Your task to perform on an android device: turn off javascript in the chrome app Image 0: 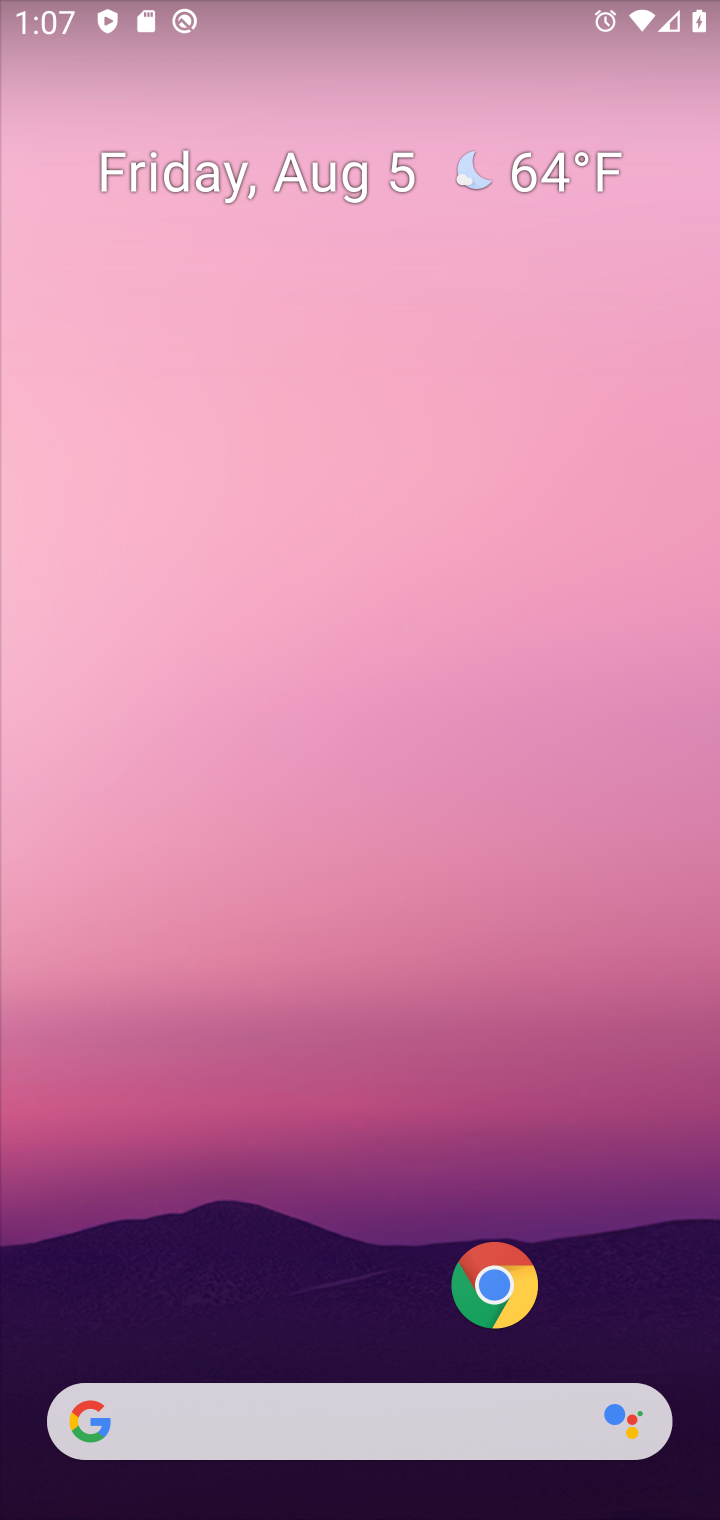
Step 0: click (508, 1298)
Your task to perform on an android device: turn off javascript in the chrome app Image 1: 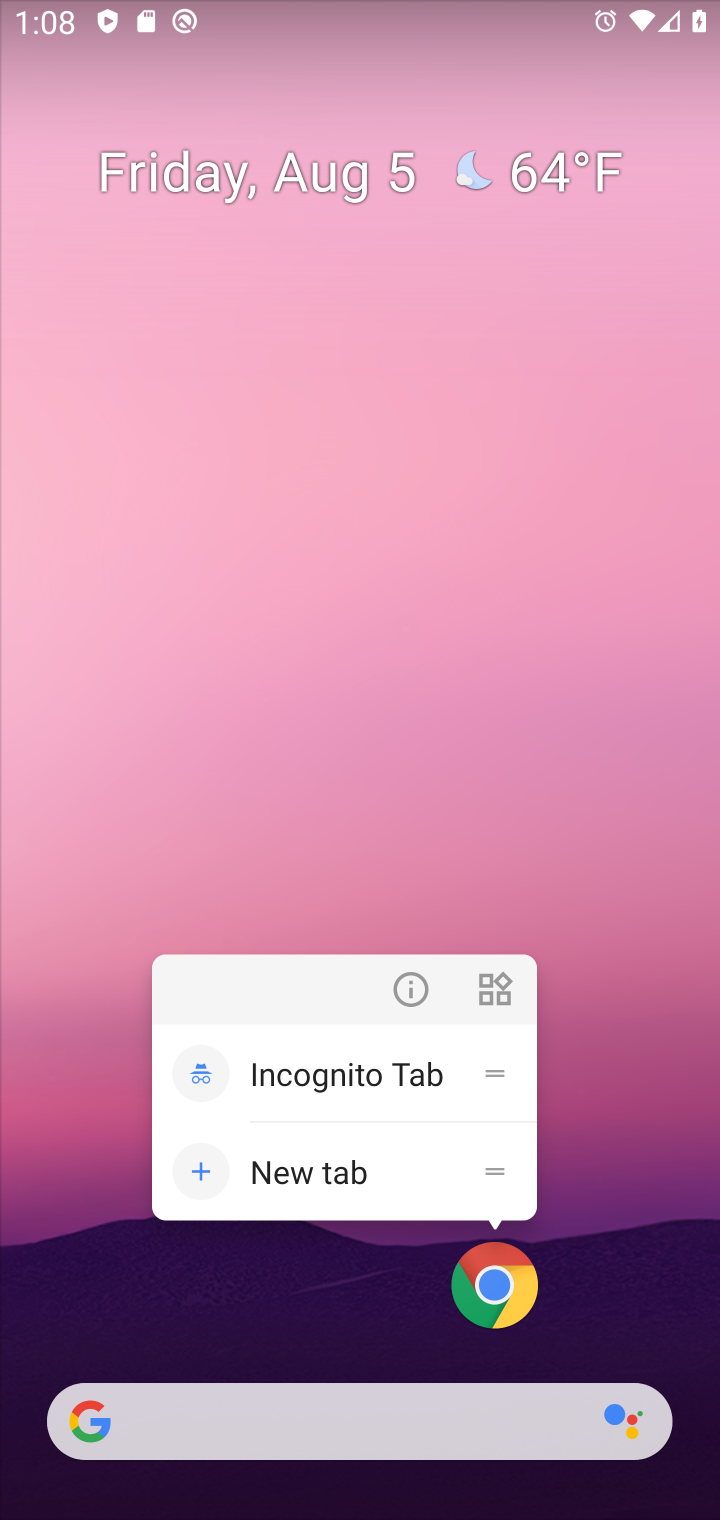
Step 1: click (273, 1297)
Your task to perform on an android device: turn off javascript in the chrome app Image 2: 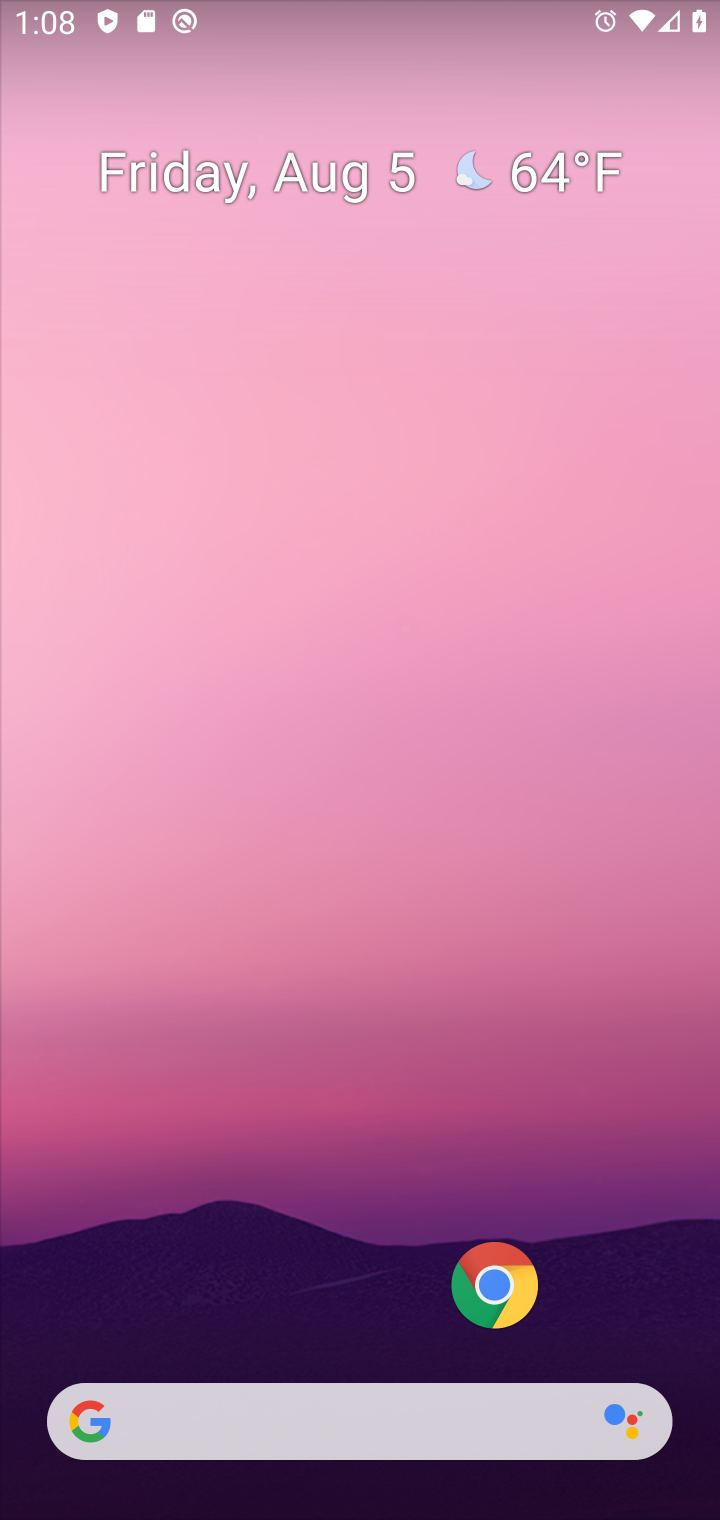
Step 2: drag from (319, 1326) to (306, 920)
Your task to perform on an android device: turn off javascript in the chrome app Image 3: 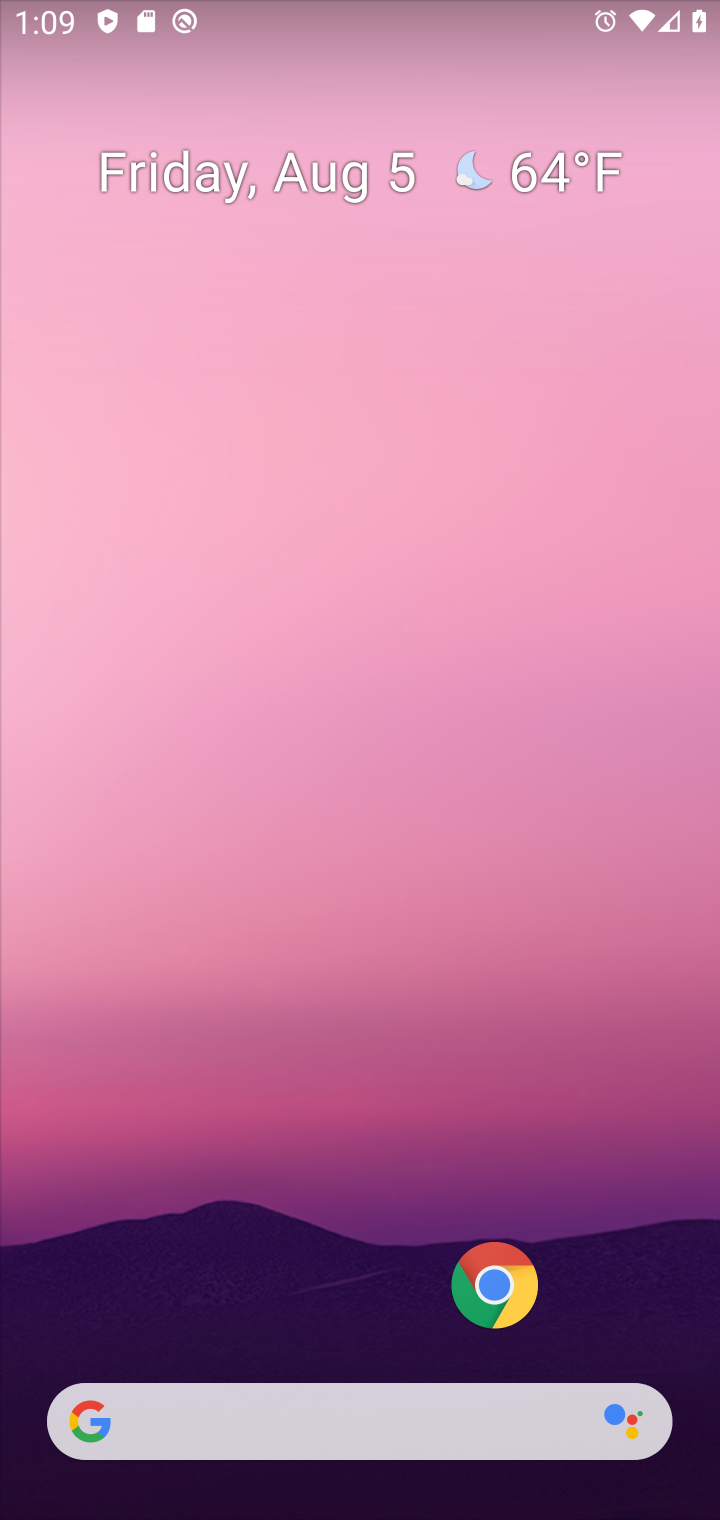
Step 3: drag from (241, 1062) to (248, 695)
Your task to perform on an android device: turn off javascript in the chrome app Image 4: 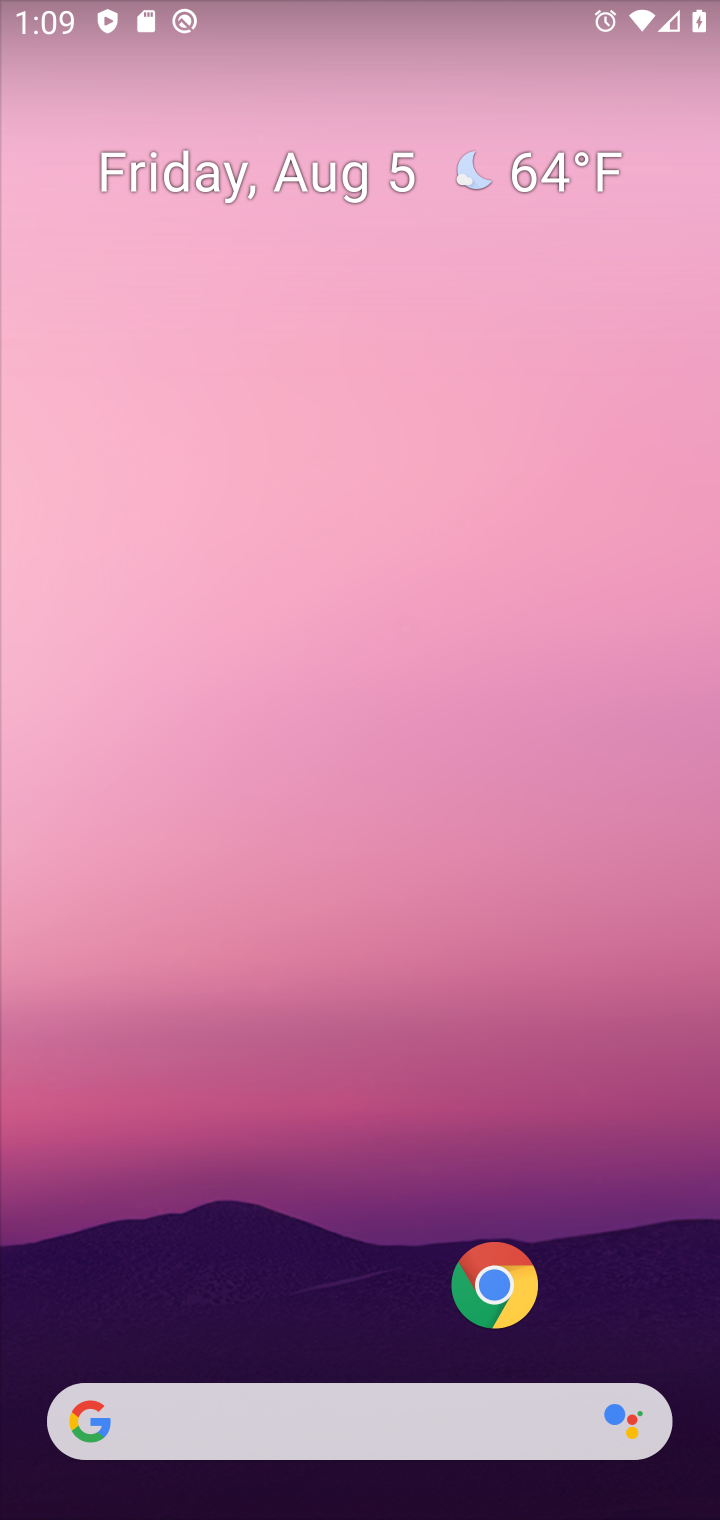
Step 4: click (519, 1266)
Your task to perform on an android device: turn off javascript in the chrome app Image 5: 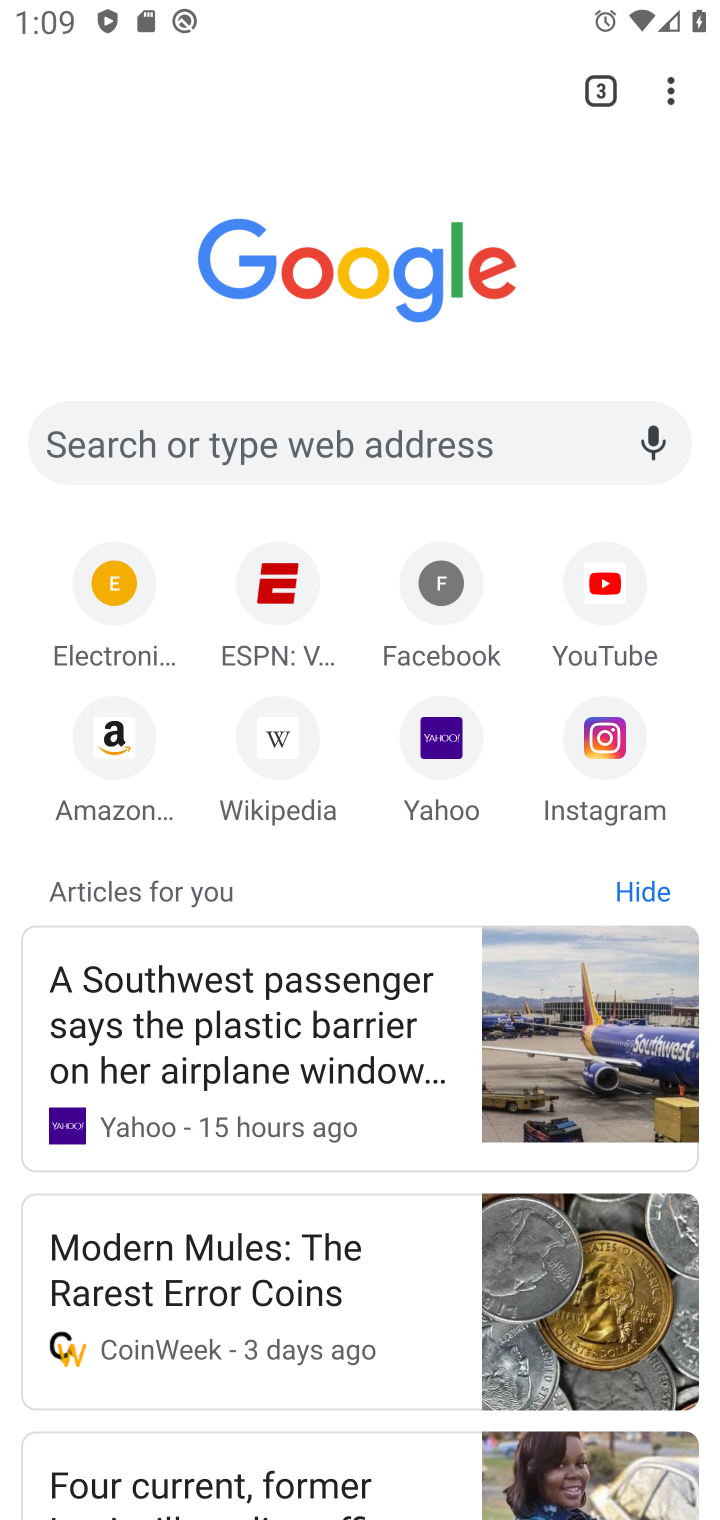
Step 5: drag from (693, 93) to (349, 883)
Your task to perform on an android device: turn off javascript in the chrome app Image 6: 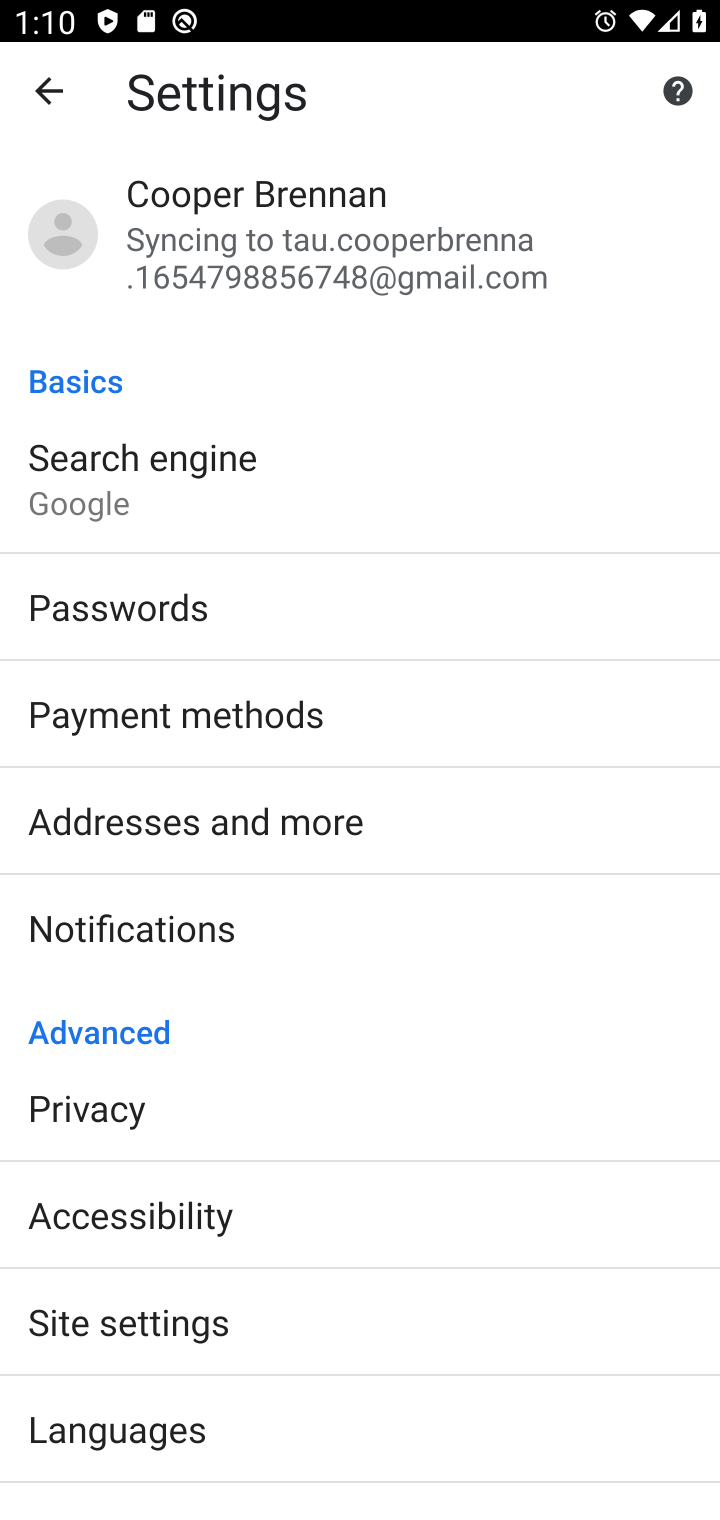
Step 6: click (173, 1322)
Your task to perform on an android device: turn off javascript in the chrome app Image 7: 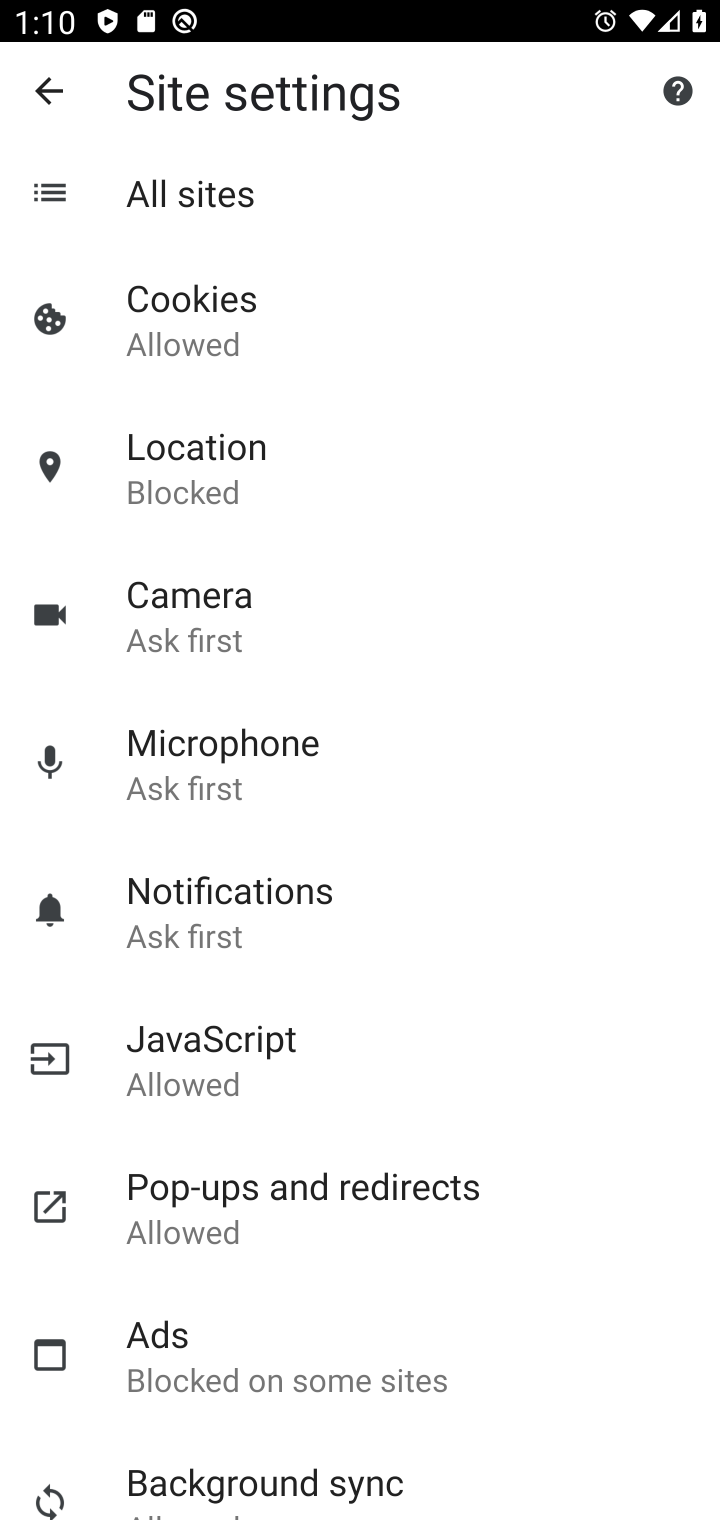
Step 7: click (158, 1083)
Your task to perform on an android device: turn off javascript in the chrome app Image 8: 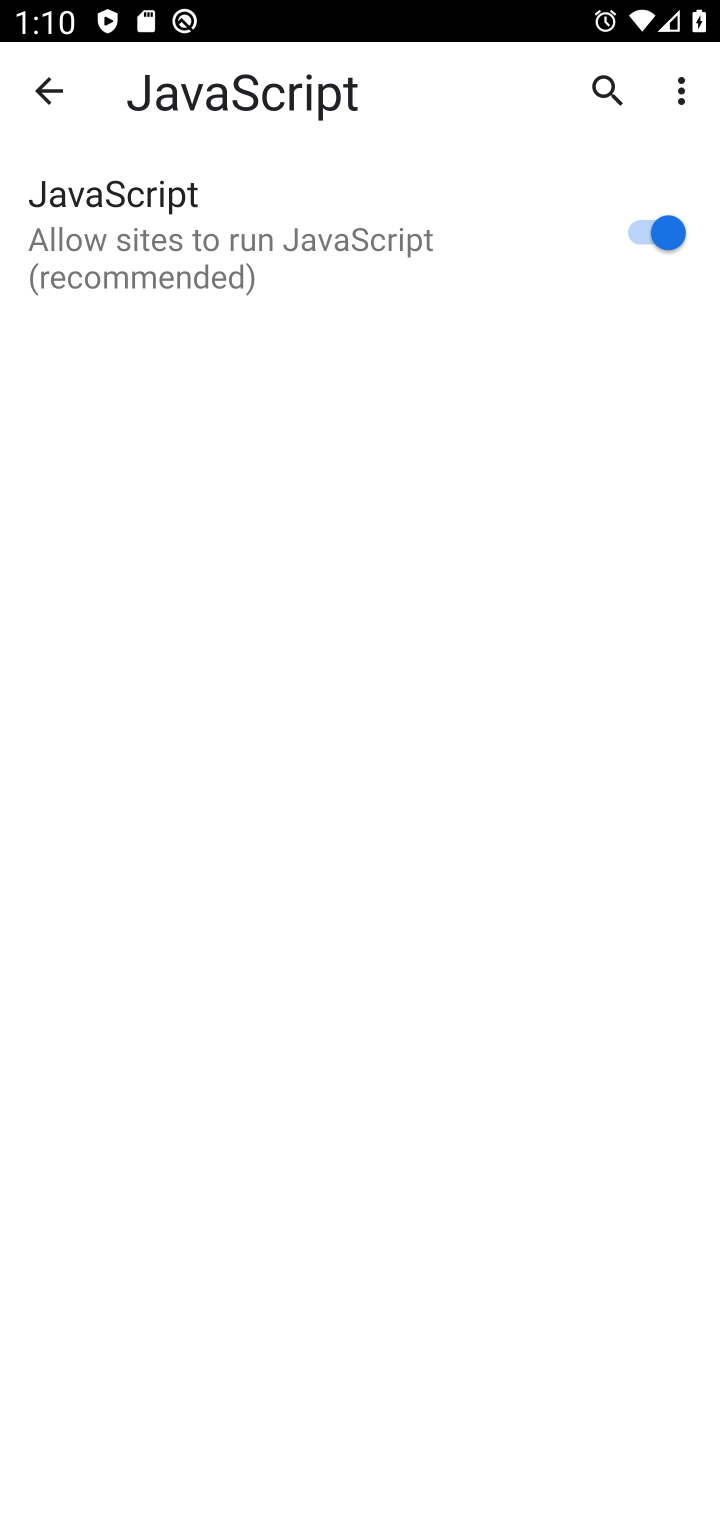
Step 8: task complete